Your task to perform on an android device: Open Yahoo.com Image 0: 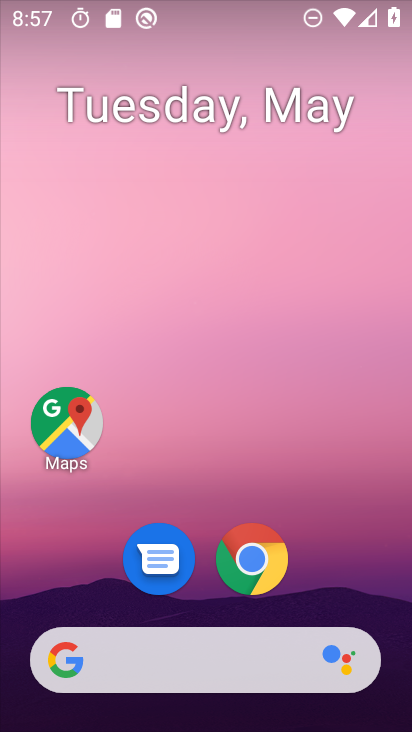
Step 0: drag from (390, 644) to (221, 20)
Your task to perform on an android device: Open Yahoo.com Image 1: 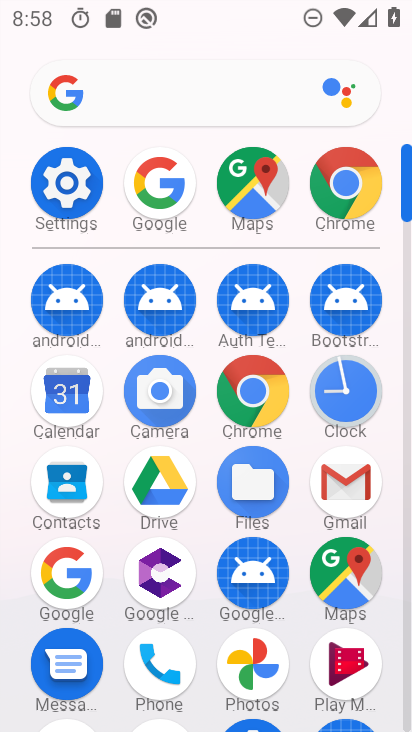
Step 1: click (161, 176)
Your task to perform on an android device: Open Yahoo.com Image 2: 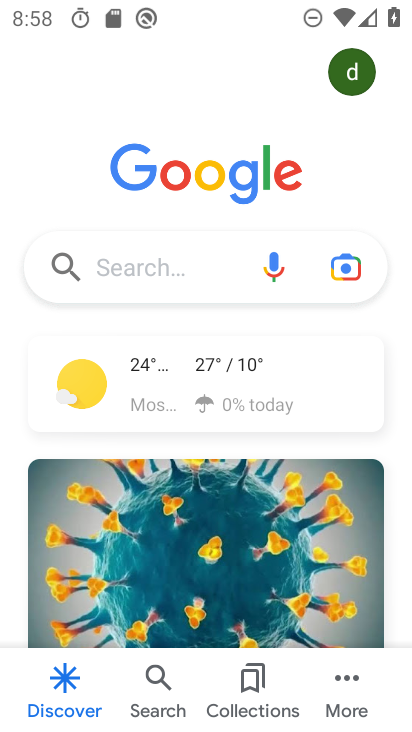
Step 2: click (162, 258)
Your task to perform on an android device: Open Yahoo.com Image 3: 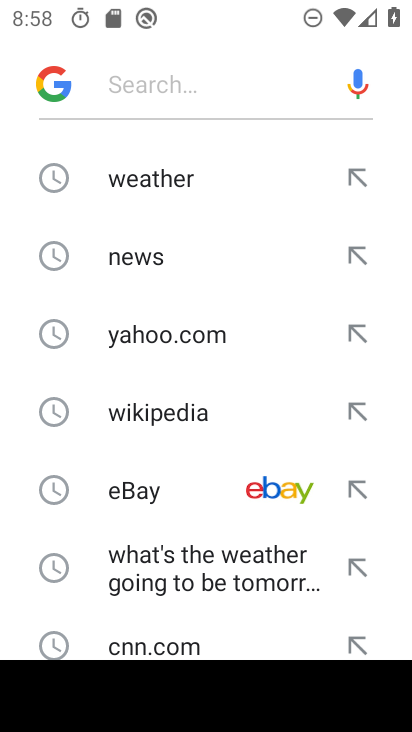
Step 3: drag from (162, 589) to (173, 397)
Your task to perform on an android device: Open Yahoo.com Image 4: 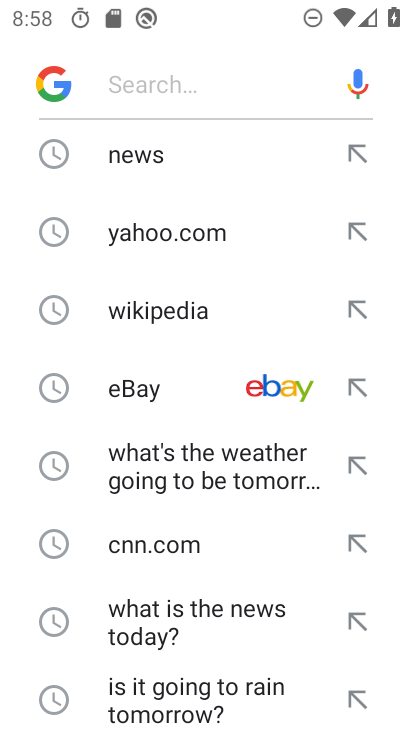
Step 4: click (169, 239)
Your task to perform on an android device: Open Yahoo.com Image 5: 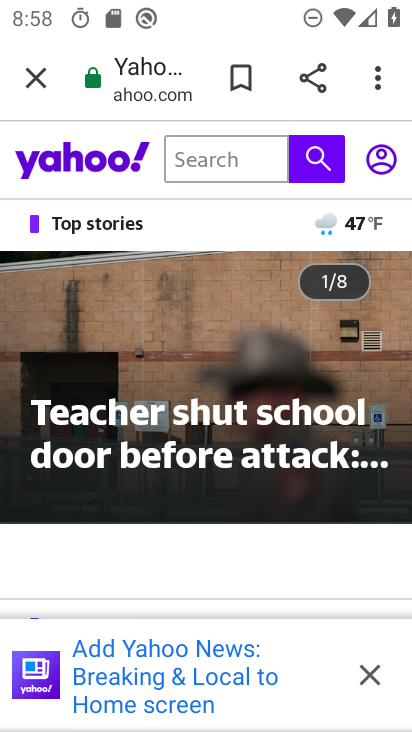
Step 5: task complete